Your task to perform on an android device: turn on location history Image 0: 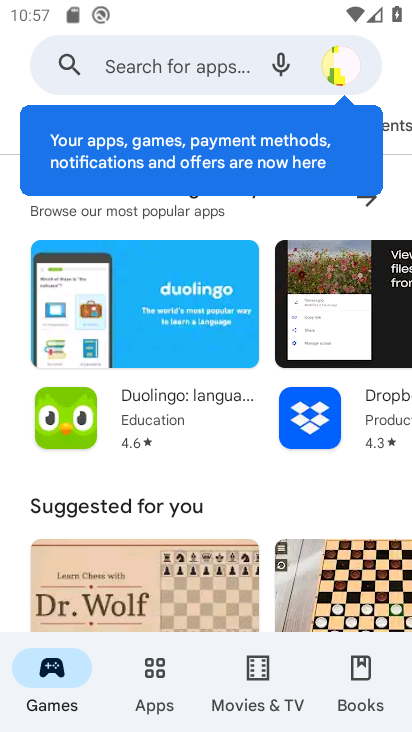
Step 0: press home button
Your task to perform on an android device: turn on location history Image 1: 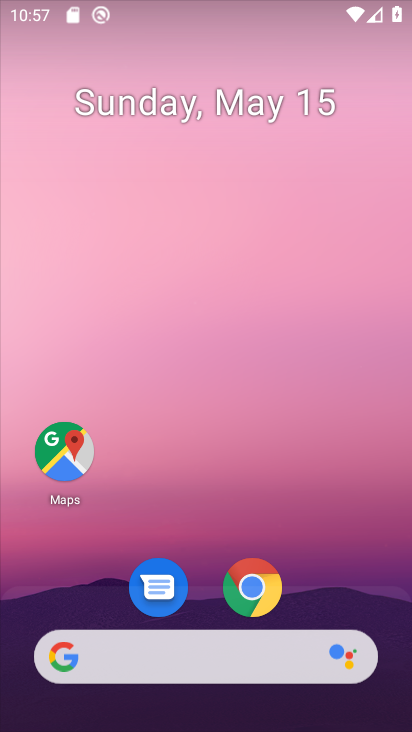
Step 1: drag from (201, 612) to (240, 186)
Your task to perform on an android device: turn on location history Image 2: 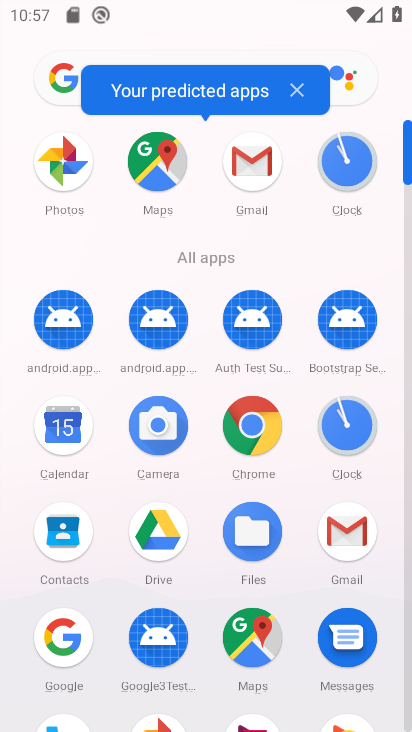
Step 2: drag from (215, 595) to (224, 246)
Your task to perform on an android device: turn on location history Image 3: 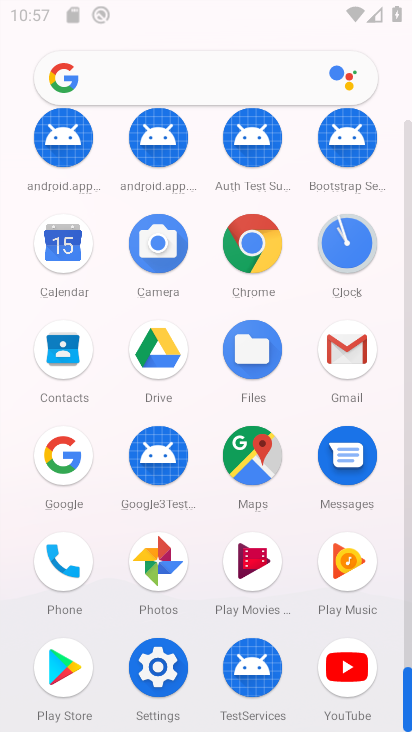
Step 3: click (155, 636)
Your task to perform on an android device: turn on location history Image 4: 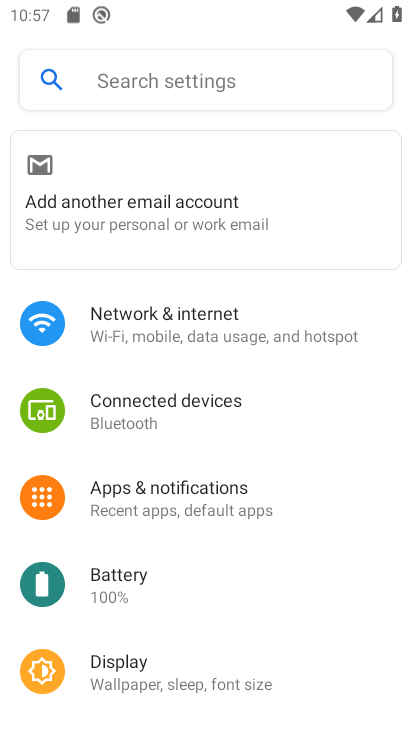
Step 4: drag from (265, 598) to (259, 356)
Your task to perform on an android device: turn on location history Image 5: 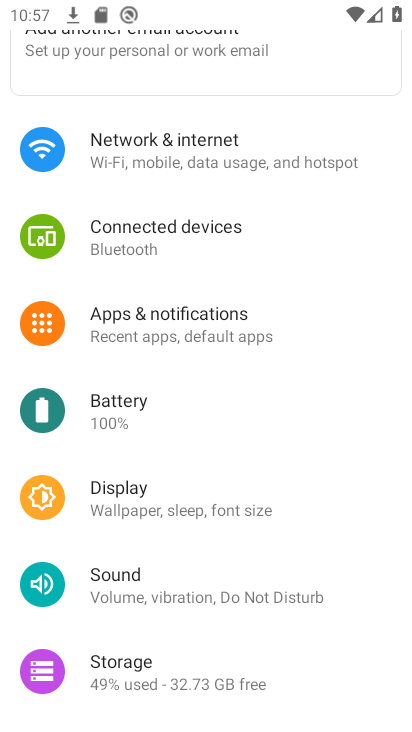
Step 5: drag from (249, 525) to (264, 324)
Your task to perform on an android device: turn on location history Image 6: 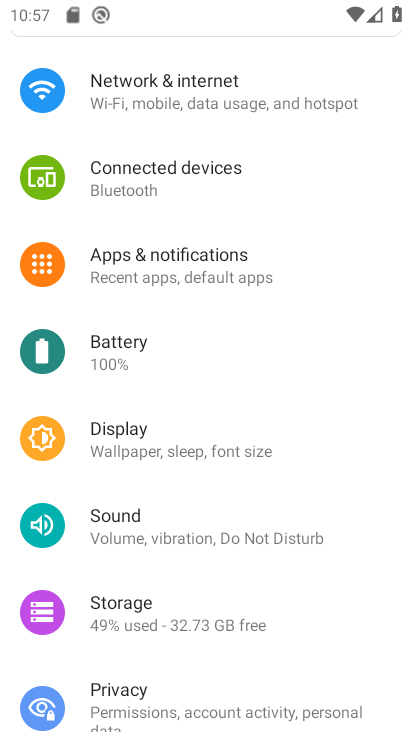
Step 6: drag from (188, 597) to (226, 233)
Your task to perform on an android device: turn on location history Image 7: 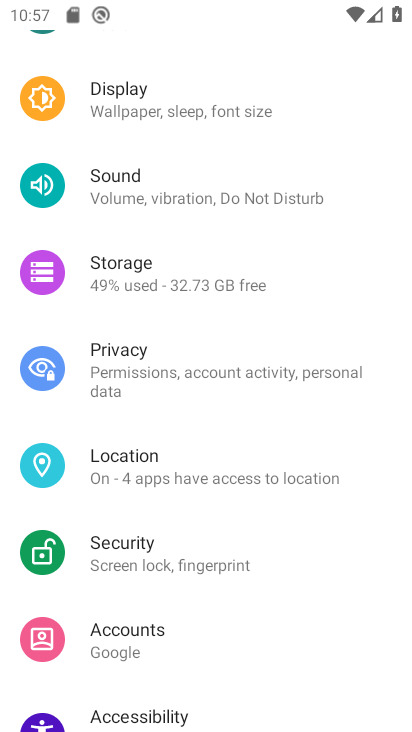
Step 7: click (164, 490)
Your task to perform on an android device: turn on location history Image 8: 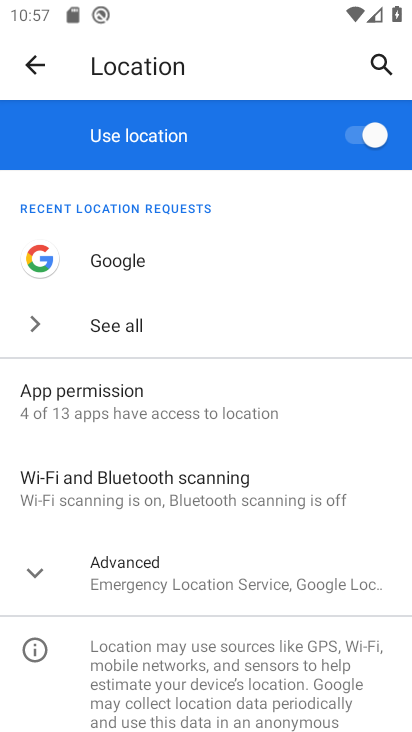
Step 8: drag from (224, 555) to (255, 265)
Your task to perform on an android device: turn on location history Image 9: 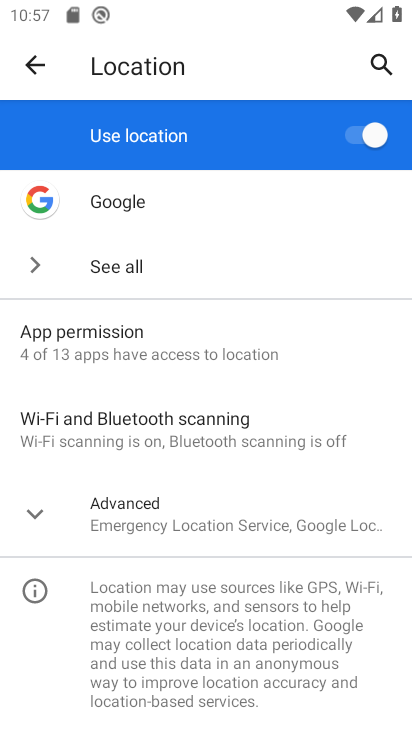
Step 9: click (192, 502)
Your task to perform on an android device: turn on location history Image 10: 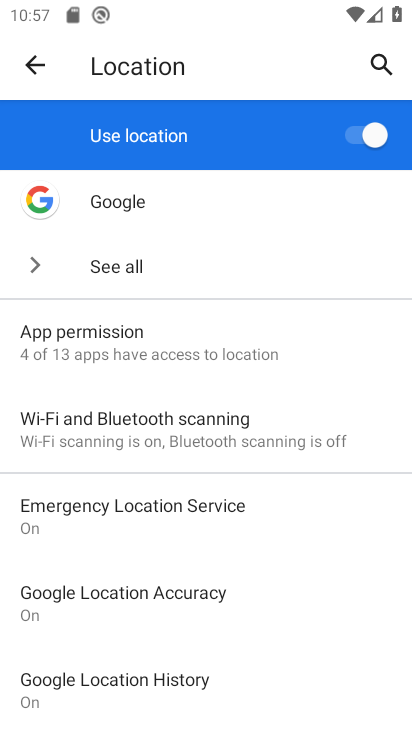
Step 10: click (204, 663)
Your task to perform on an android device: turn on location history Image 11: 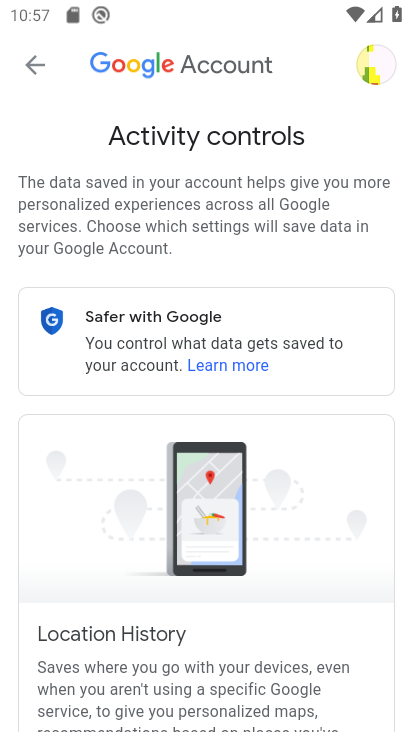
Step 11: task complete